Your task to perform on an android device: read, delete, or share a saved page in the chrome app Image 0: 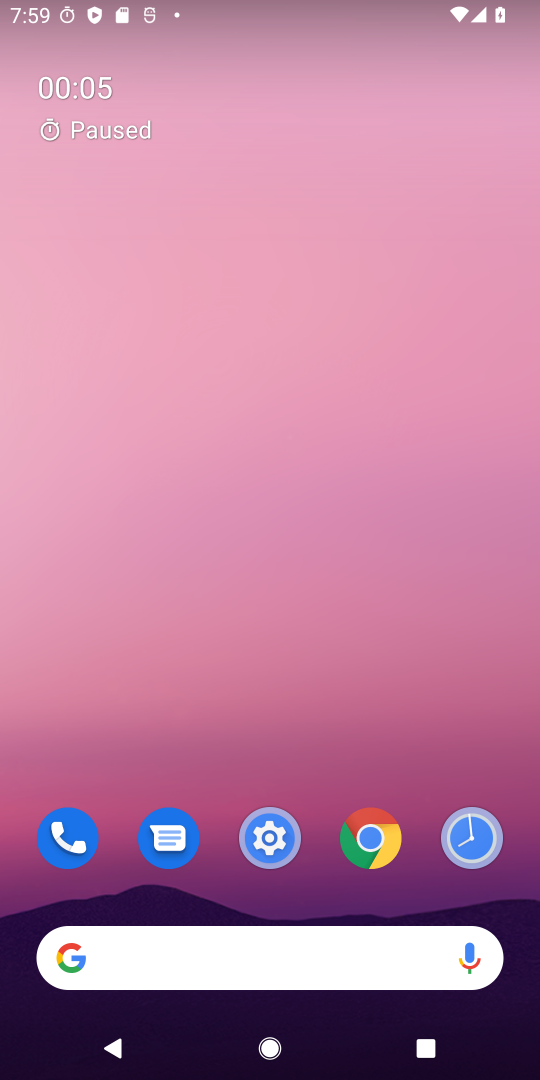
Step 0: click (368, 849)
Your task to perform on an android device: read, delete, or share a saved page in the chrome app Image 1: 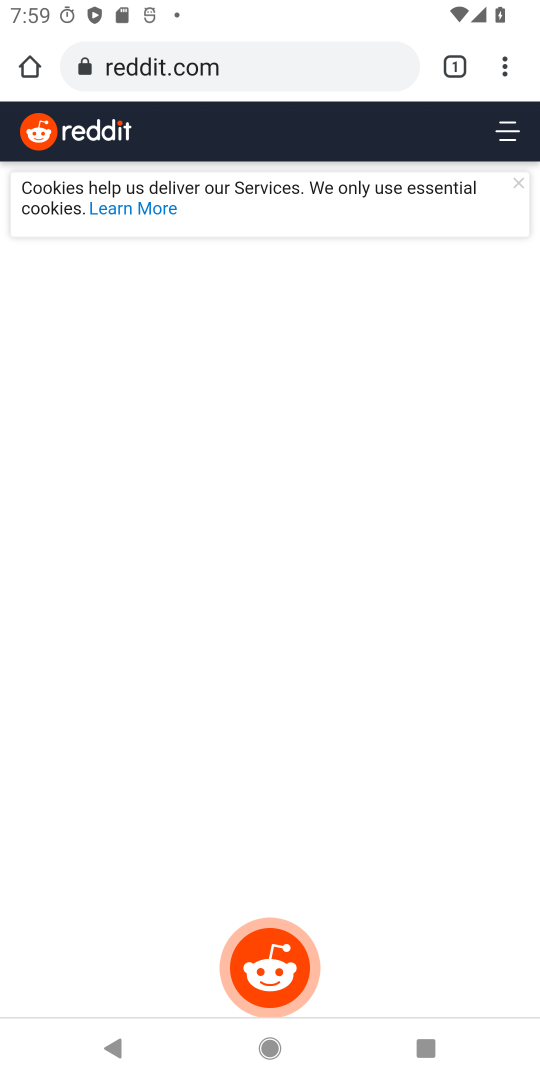
Step 1: click (499, 71)
Your task to perform on an android device: read, delete, or share a saved page in the chrome app Image 2: 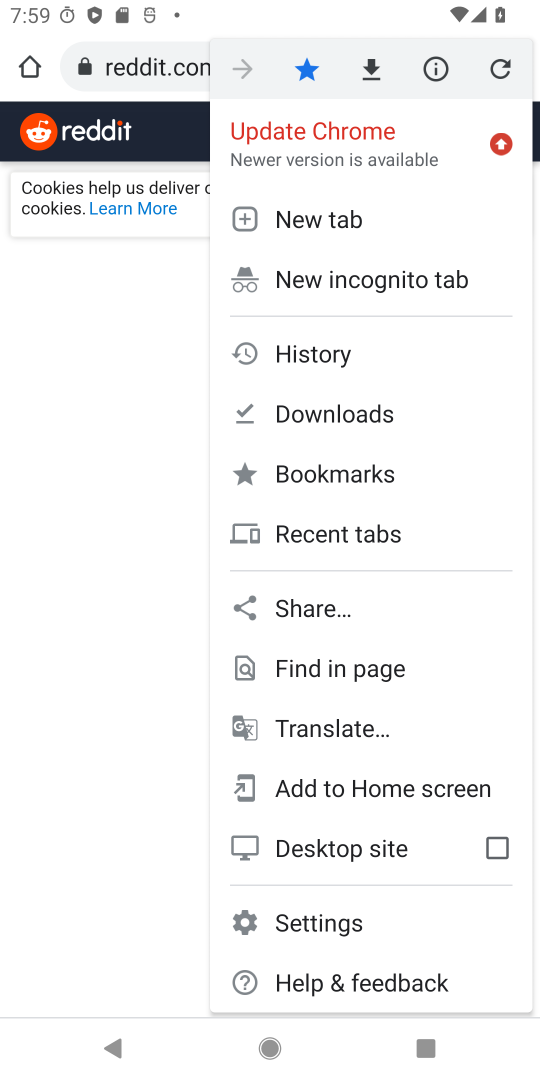
Step 2: task complete